Your task to perform on an android device: Toggle the flashlight Image 0: 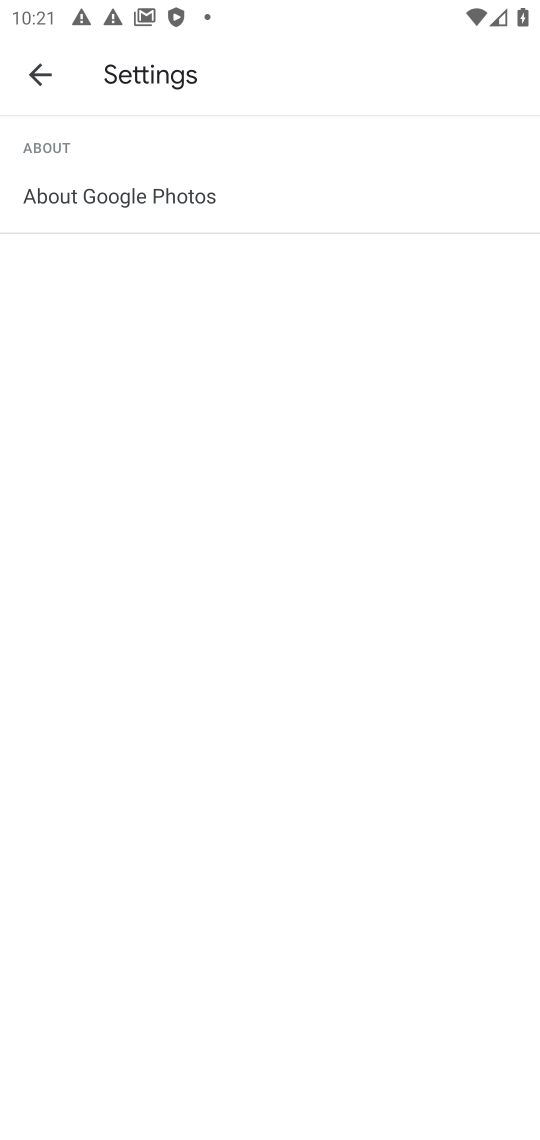
Step 0: press home button
Your task to perform on an android device: Toggle the flashlight Image 1: 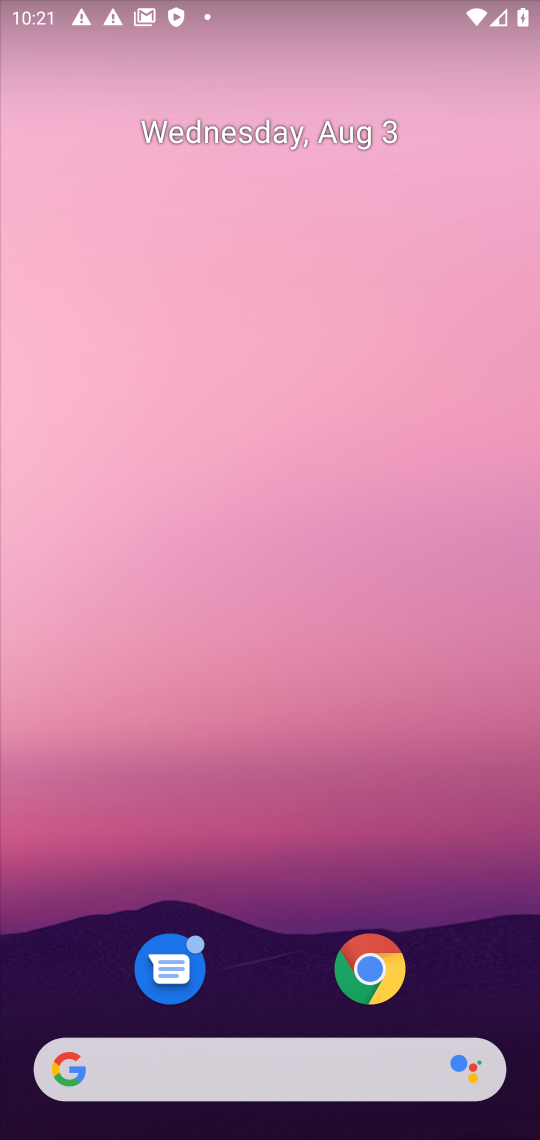
Step 1: drag from (256, 1018) to (238, 164)
Your task to perform on an android device: Toggle the flashlight Image 2: 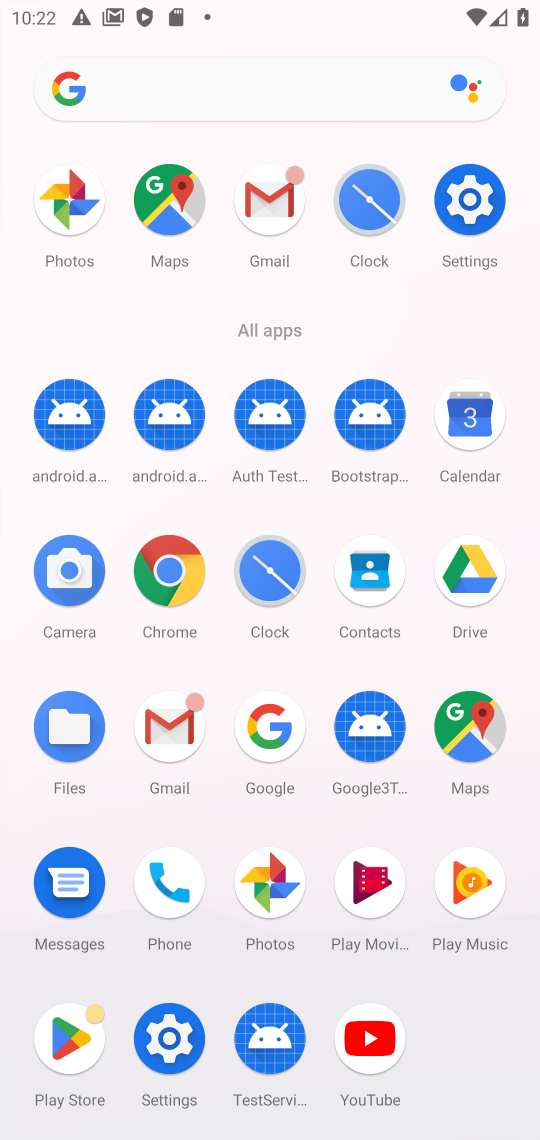
Step 2: click (174, 1046)
Your task to perform on an android device: Toggle the flashlight Image 3: 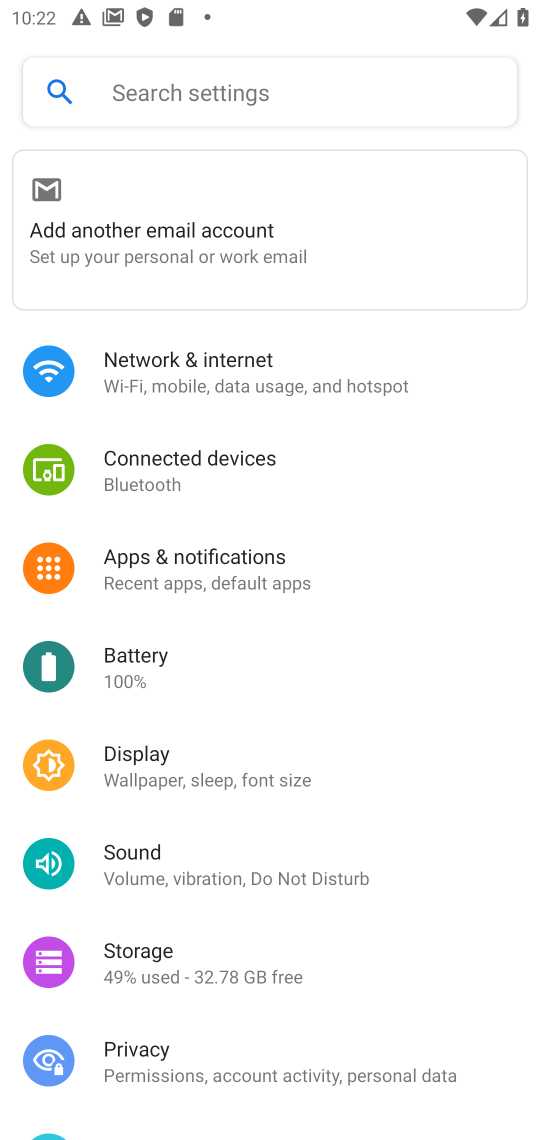
Step 3: task complete